Your task to perform on an android device: Play the last video I watched on Youtube Image 0: 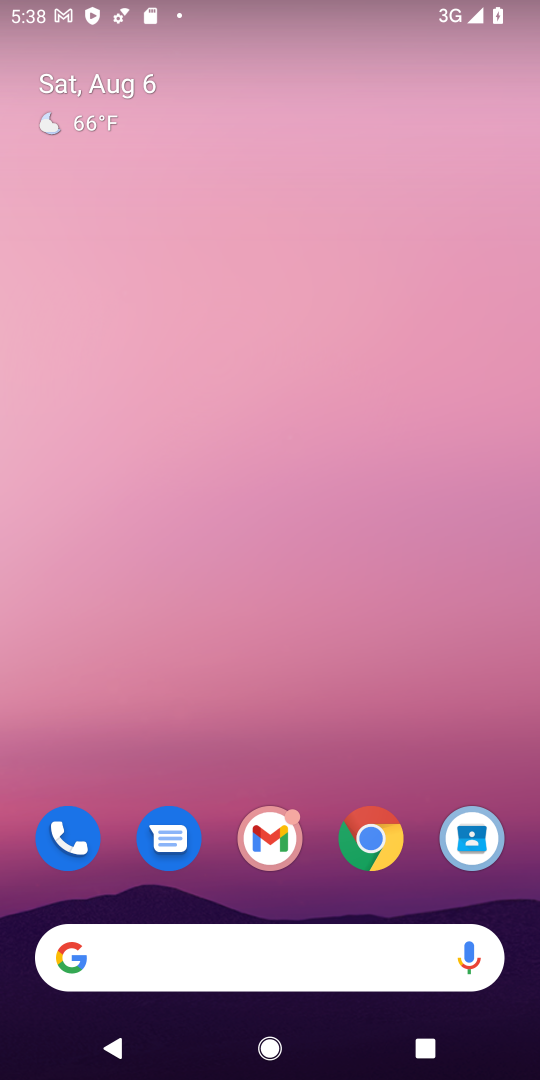
Step 0: drag from (357, 741) to (290, 8)
Your task to perform on an android device: Play the last video I watched on Youtube Image 1: 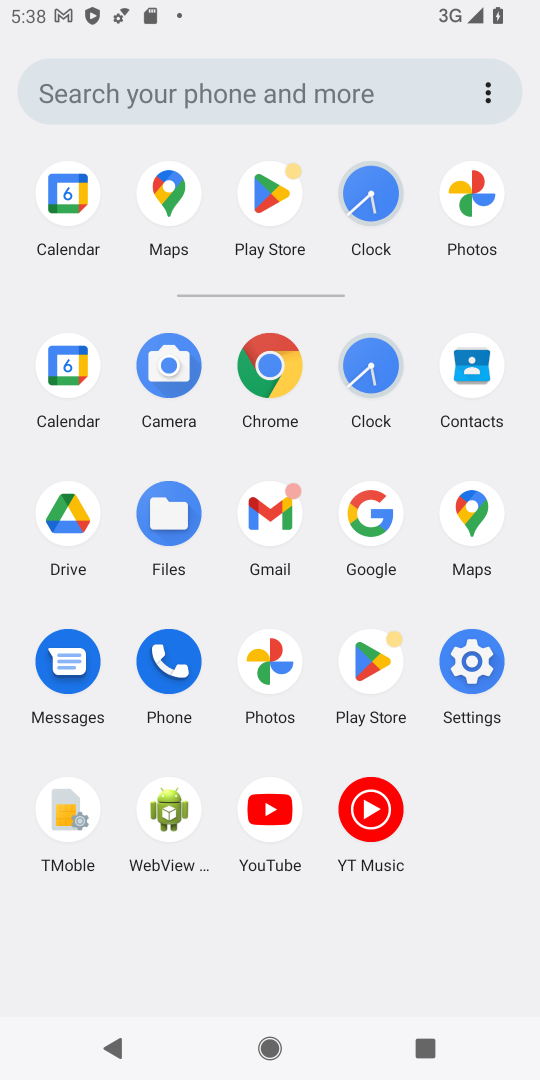
Step 1: click (284, 825)
Your task to perform on an android device: Play the last video I watched on Youtube Image 2: 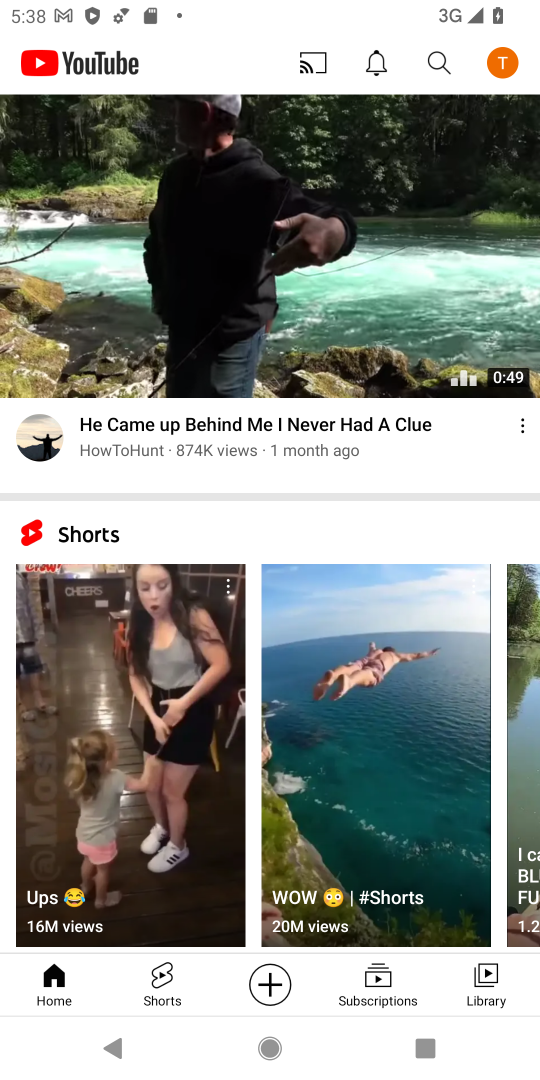
Step 2: click (466, 1001)
Your task to perform on an android device: Play the last video I watched on Youtube Image 3: 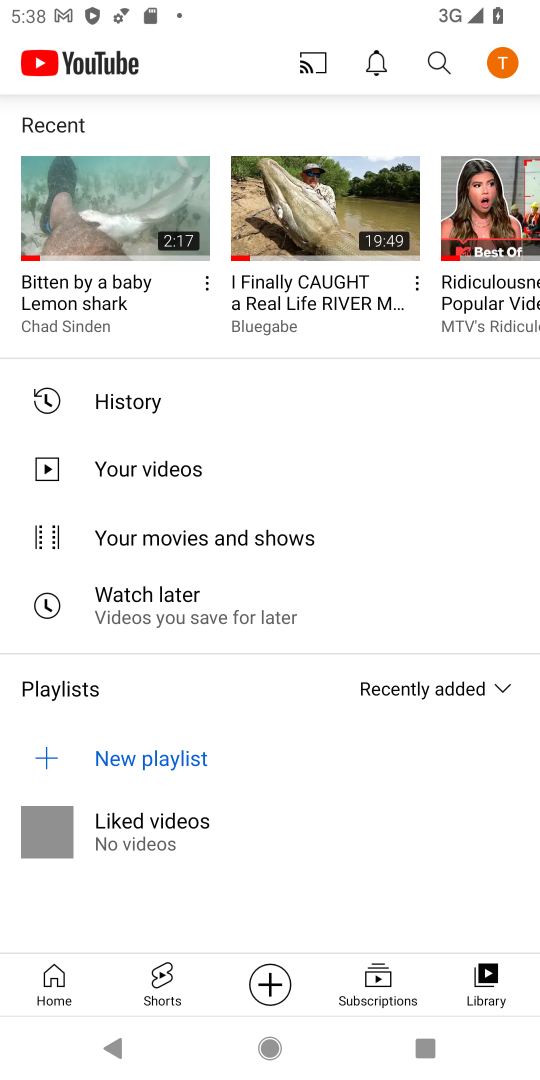
Step 3: click (174, 407)
Your task to perform on an android device: Play the last video I watched on Youtube Image 4: 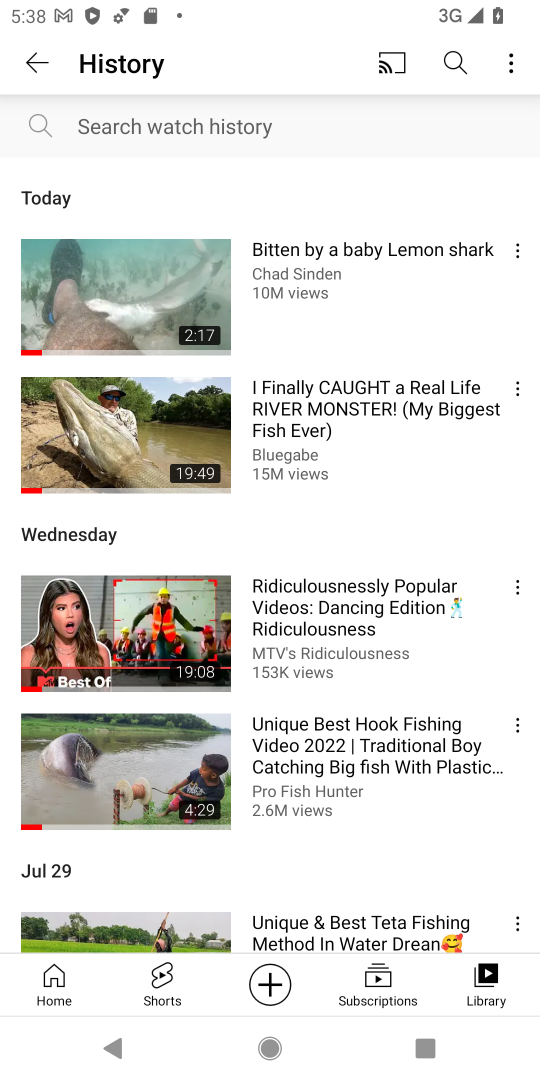
Step 4: click (332, 278)
Your task to perform on an android device: Play the last video I watched on Youtube Image 5: 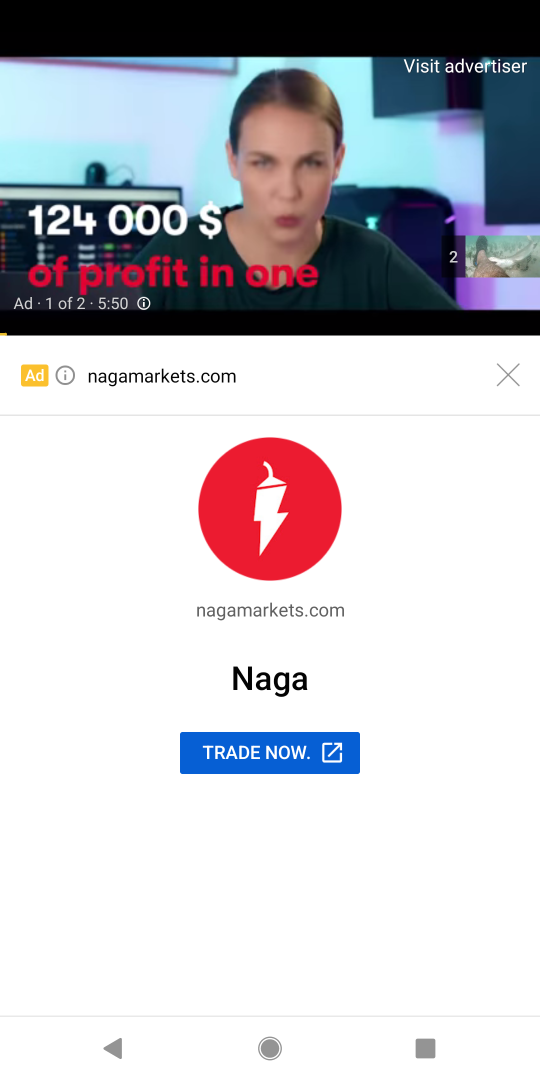
Step 5: click (487, 377)
Your task to perform on an android device: Play the last video I watched on Youtube Image 6: 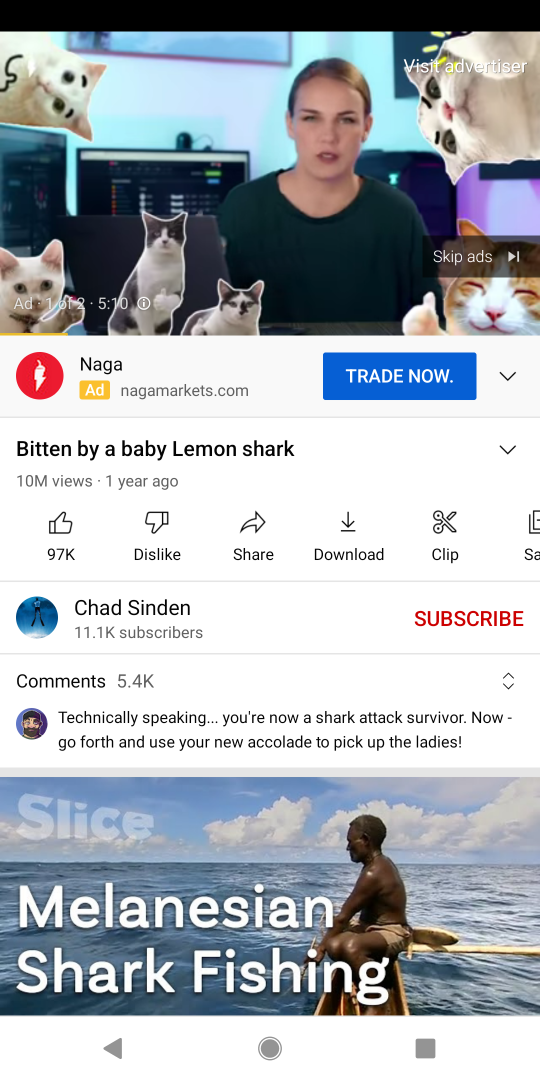
Step 6: click (482, 264)
Your task to perform on an android device: Play the last video I watched on Youtube Image 7: 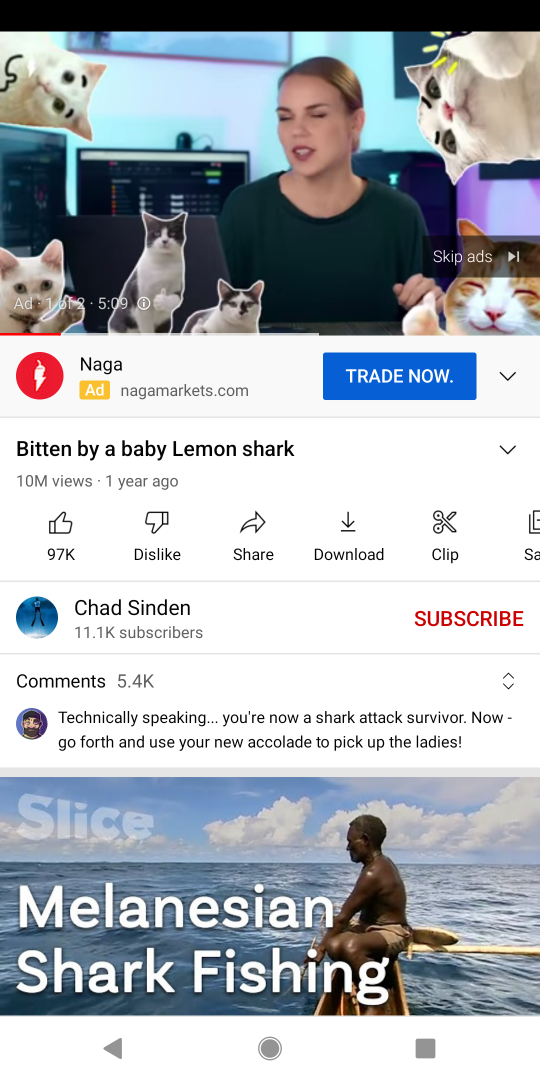
Step 7: task complete